Your task to perform on an android device: When is my next meeting? Image 0: 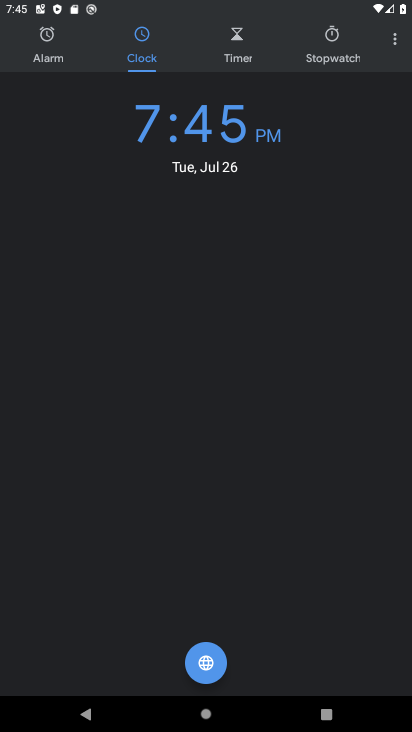
Step 0: press home button
Your task to perform on an android device: When is my next meeting? Image 1: 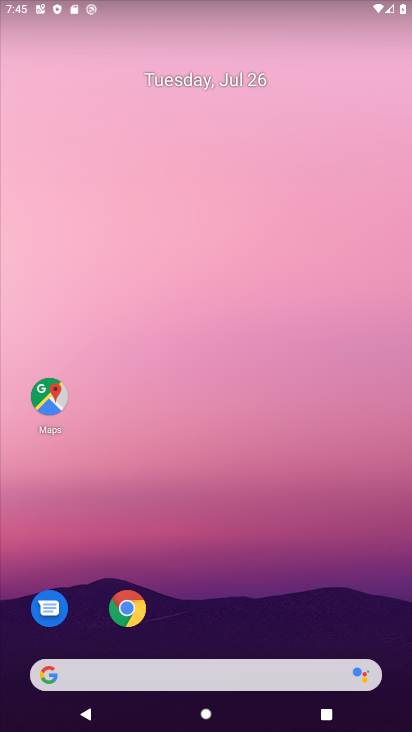
Step 1: drag from (41, 673) to (203, 220)
Your task to perform on an android device: When is my next meeting? Image 2: 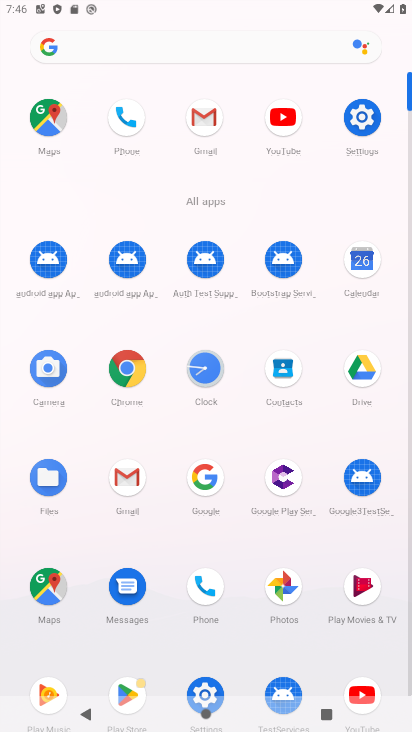
Step 2: click (366, 270)
Your task to perform on an android device: When is my next meeting? Image 3: 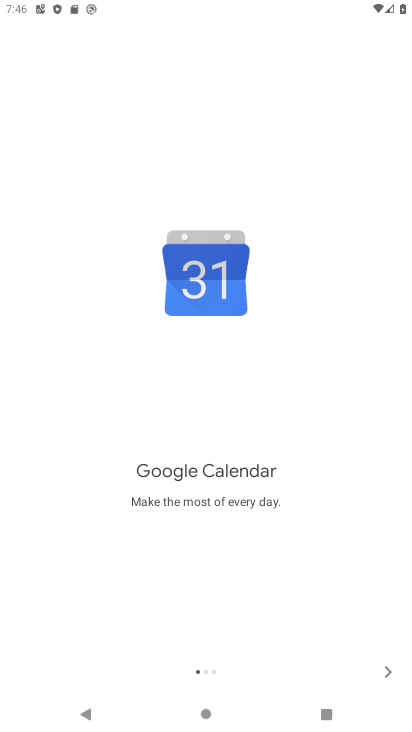
Step 3: click (373, 665)
Your task to perform on an android device: When is my next meeting? Image 4: 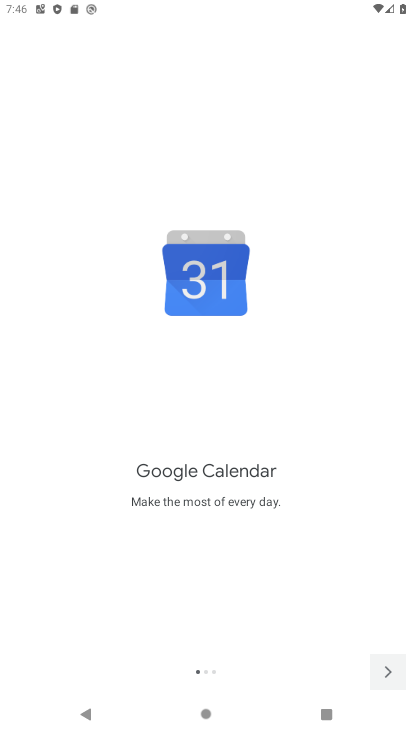
Step 4: click (387, 675)
Your task to perform on an android device: When is my next meeting? Image 5: 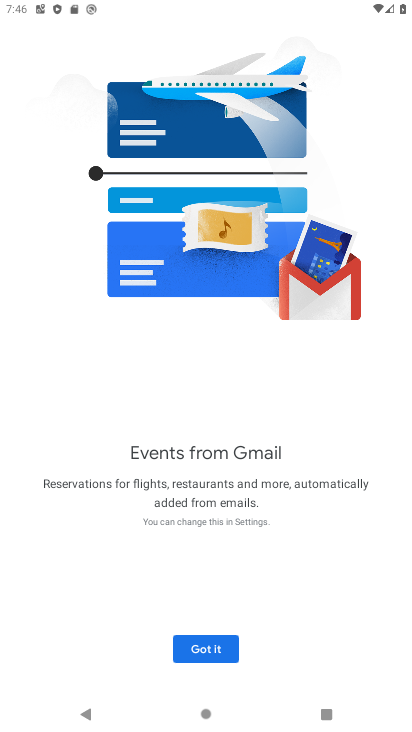
Step 5: click (218, 644)
Your task to perform on an android device: When is my next meeting? Image 6: 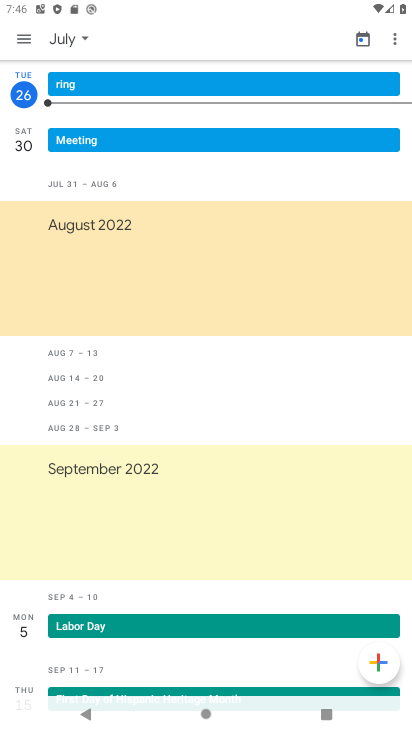
Step 6: click (83, 41)
Your task to perform on an android device: When is my next meeting? Image 7: 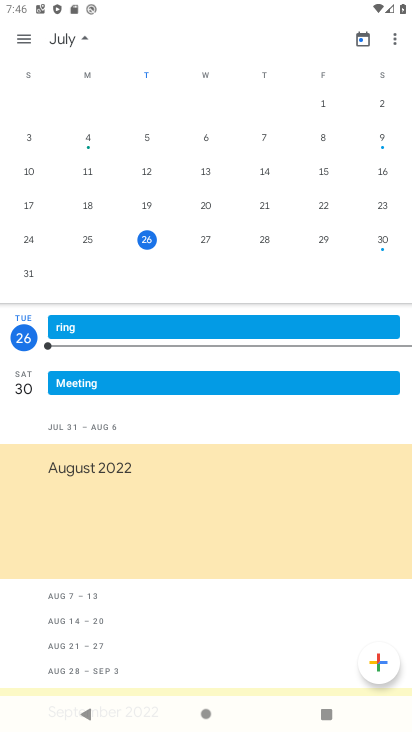
Step 7: task complete